Your task to perform on an android device: toggle translation in the chrome app Image 0: 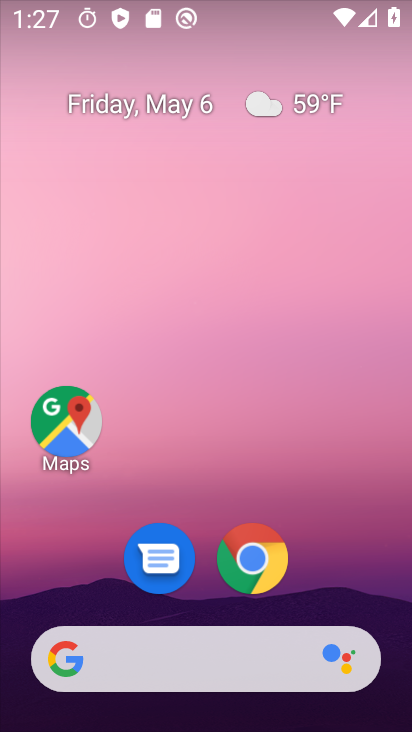
Step 0: click (247, 558)
Your task to perform on an android device: toggle translation in the chrome app Image 1: 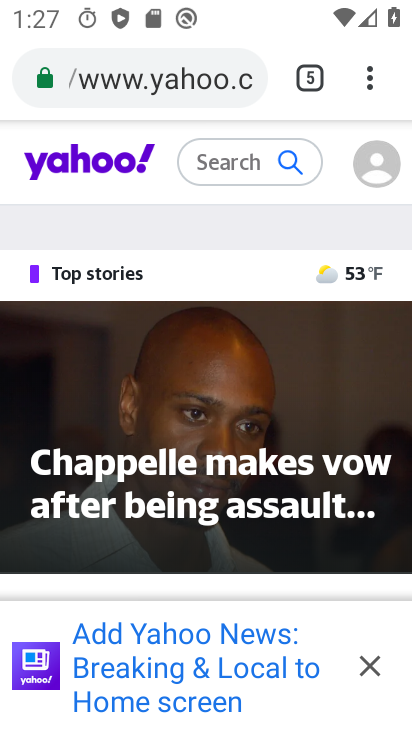
Step 1: drag from (368, 82) to (160, 603)
Your task to perform on an android device: toggle translation in the chrome app Image 2: 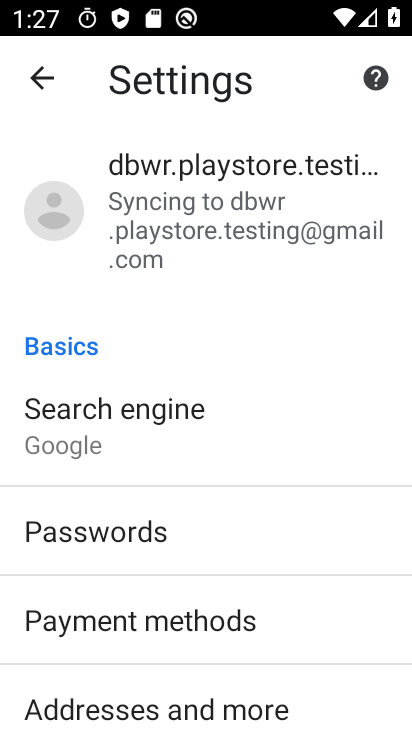
Step 2: drag from (164, 675) to (169, 393)
Your task to perform on an android device: toggle translation in the chrome app Image 3: 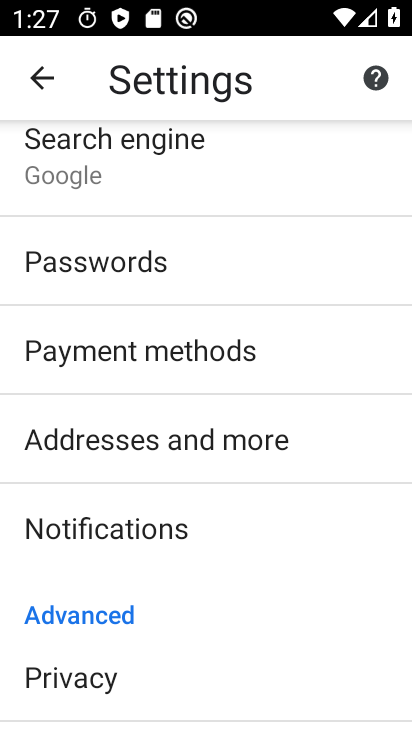
Step 3: drag from (175, 675) to (199, 339)
Your task to perform on an android device: toggle translation in the chrome app Image 4: 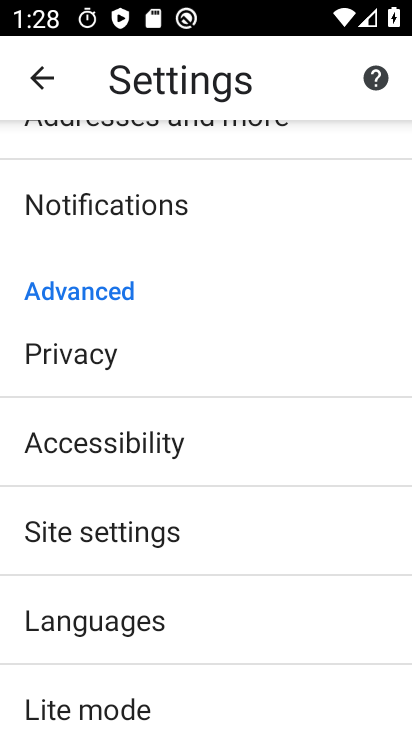
Step 4: click (140, 618)
Your task to perform on an android device: toggle translation in the chrome app Image 5: 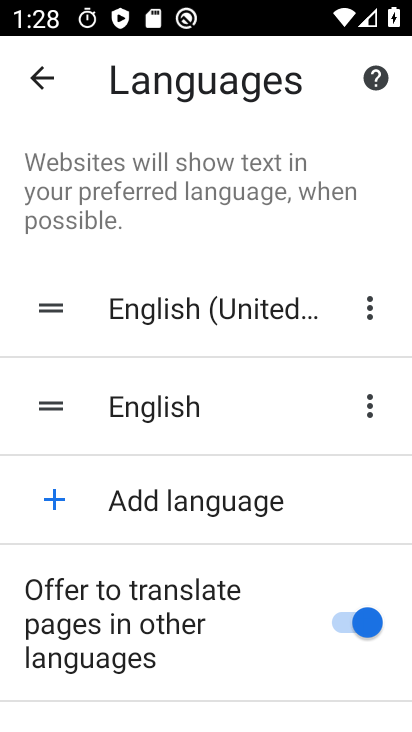
Step 5: drag from (212, 681) to (205, 517)
Your task to perform on an android device: toggle translation in the chrome app Image 6: 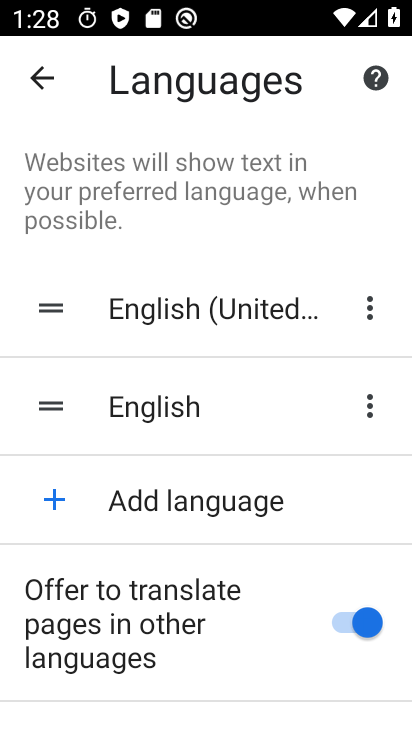
Step 6: click (345, 616)
Your task to perform on an android device: toggle translation in the chrome app Image 7: 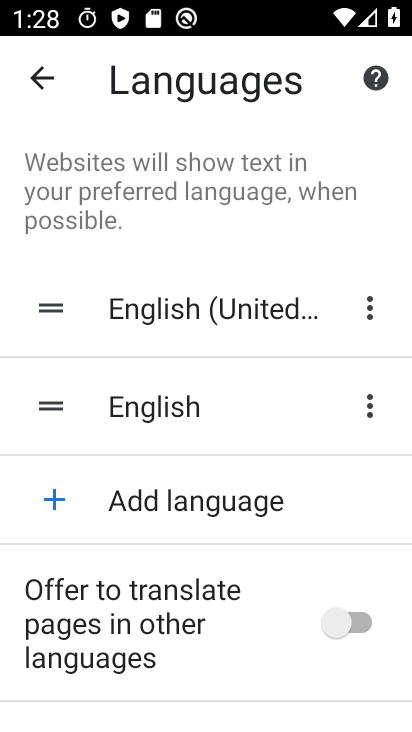
Step 7: task complete